Your task to perform on an android device: turn off javascript in the chrome app Image 0: 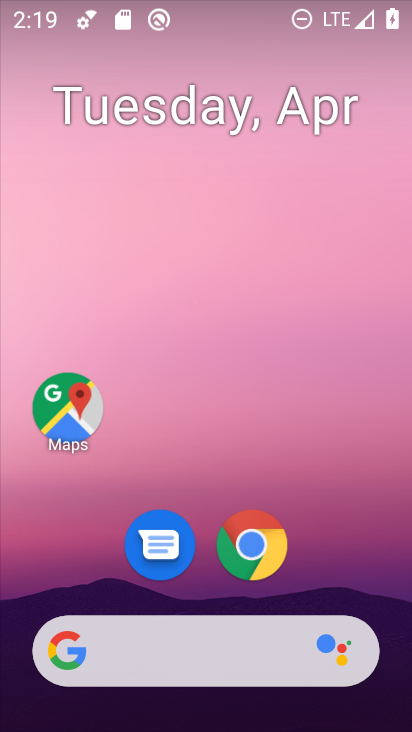
Step 0: drag from (399, 591) to (310, 299)
Your task to perform on an android device: turn off javascript in the chrome app Image 1: 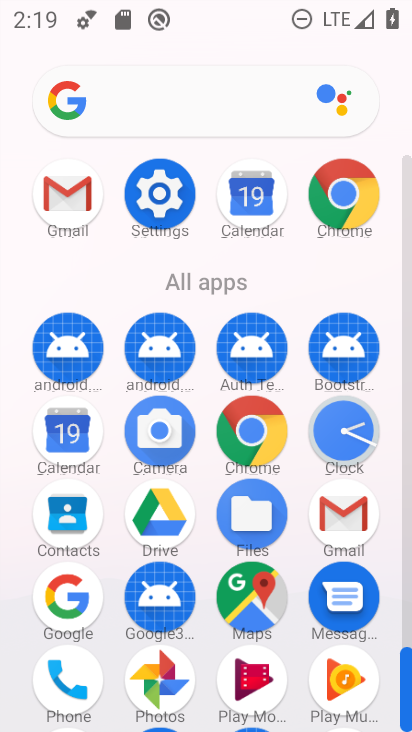
Step 1: click (334, 207)
Your task to perform on an android device: turn off javascript in the chrome app Image 2: 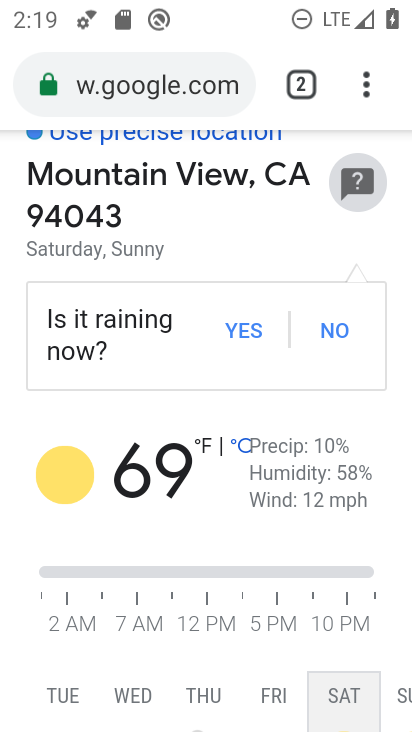
Step 2: click (367, 107)
Your task to perform on an android device: turn off javascript in the chrome app Image 3: 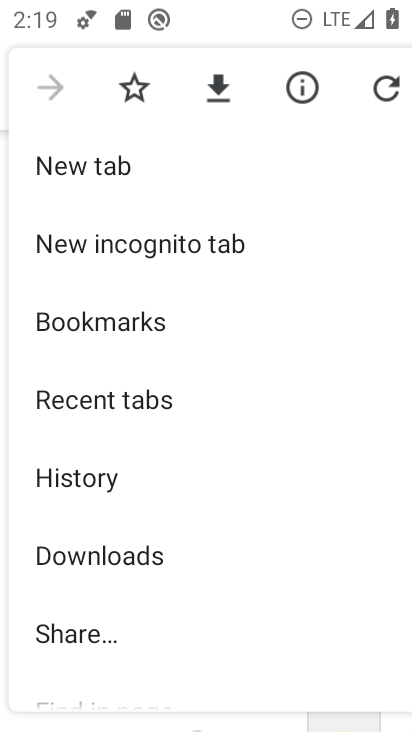
Step 3: drag from (305, 694) to (232, 383)
Your task to perform on an android device: turn off javascript in the chrome app Image 4: 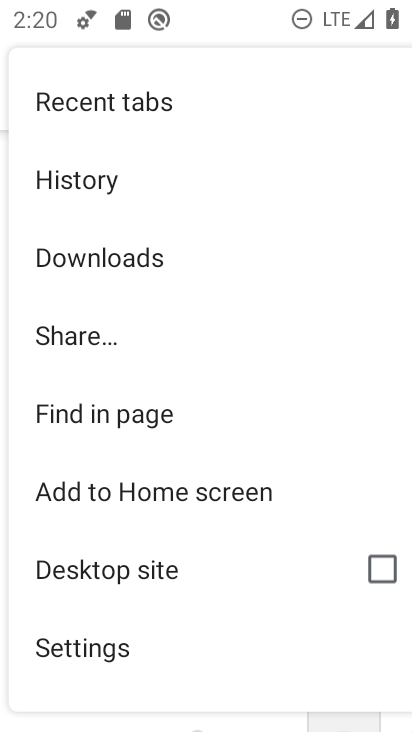
Step 4: drag from (274, 654) to (228, 318)
Your task to perform on an android device: turn off javascript in the chrome app Image 5: 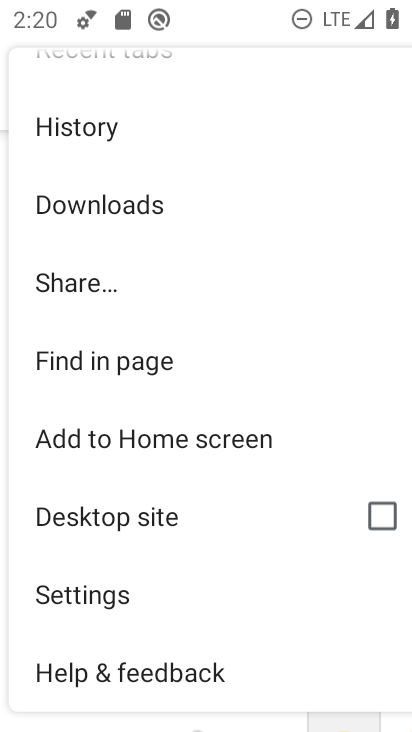
Step 5: click (252, 583)
Your task to perform on an android device: turn off javascript in the chrome app Image 6: 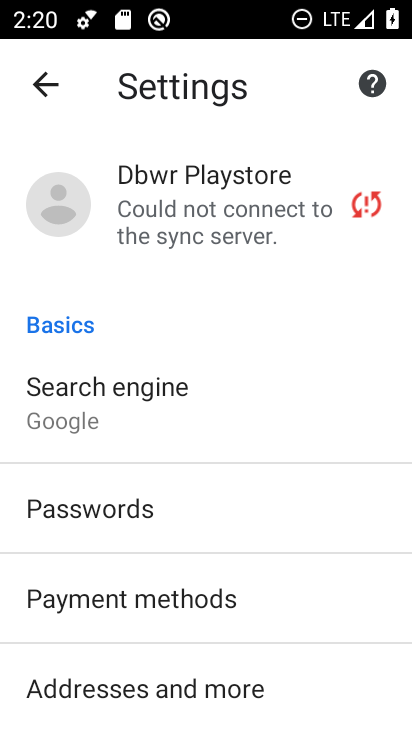
Step 6: drag from (327, 638) to (262, 166)
Your task to perform on an android device: turn off javascript in the chrome app Image 7: 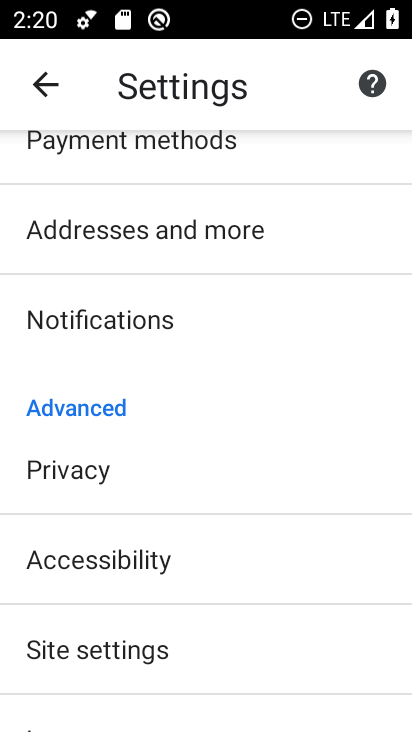
Step 7: click (300, 635)
Your task to perform on an android device: turn off javascript in the chrome app Image 8: 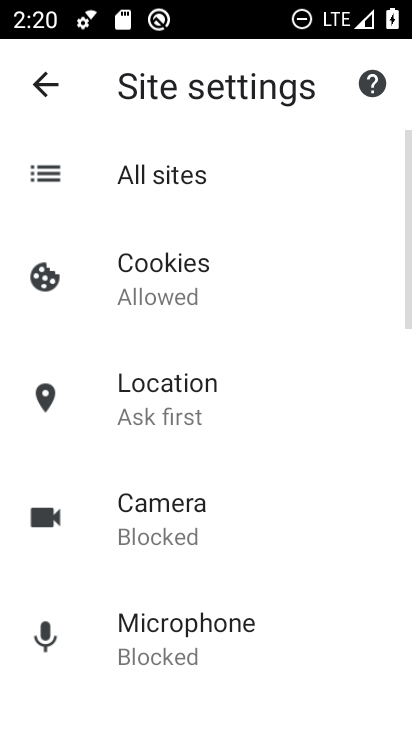
Step 8: drag from (300, 635) to (306, 60)
Your task to perform on an android device: turn off javascript in the chrome app Image 9: 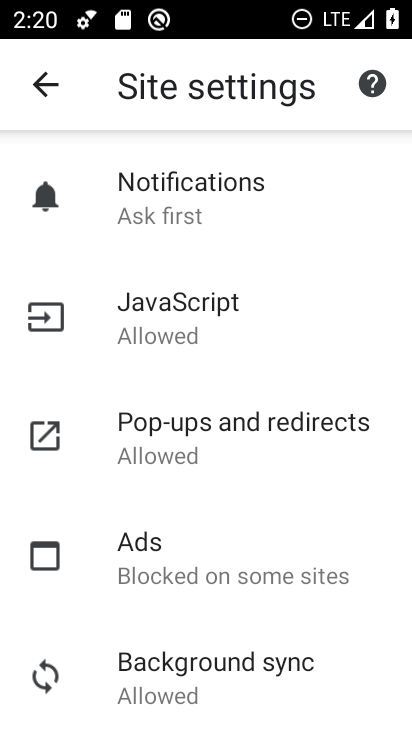
Step 9: click (319, 323)
Your task to perform on an android device: turn off javascript in the chrome app Image 10: 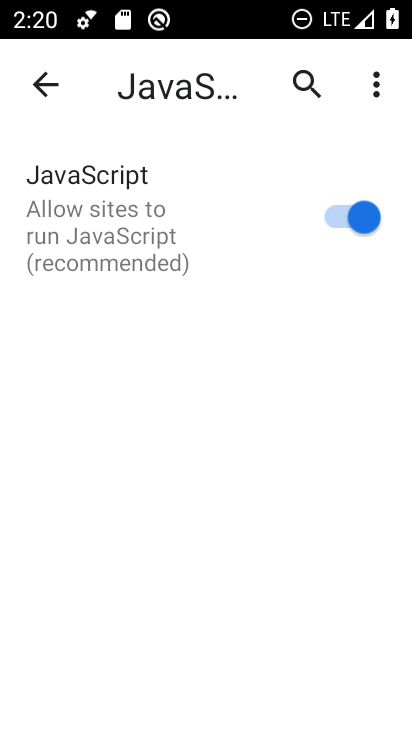
Step 10: click (352, 220)
Your task to perform on an android device: turn off javascript in the chrome app Image 11: 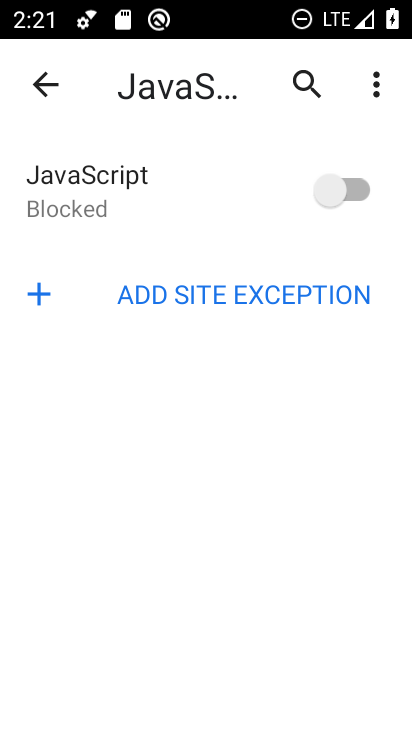
Step 11: task complete